Your task to perform on an android device: make emails show in primary in the gmail app Image 0: 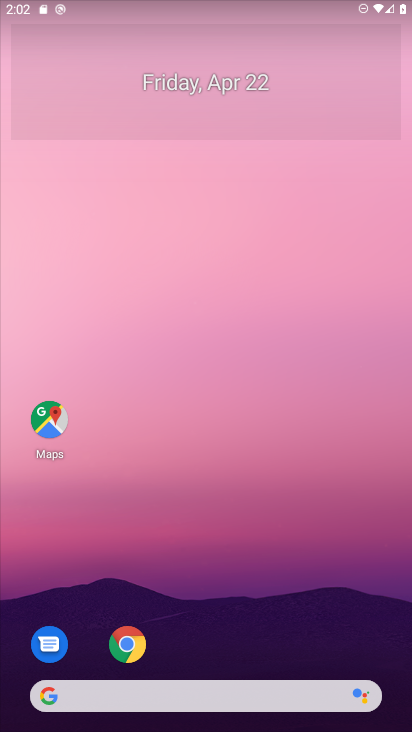
Step 0: drag from (290, 633) to (212, 173)
Your task to perform on an android device: make emails show in primary in the gmail app Image 1: 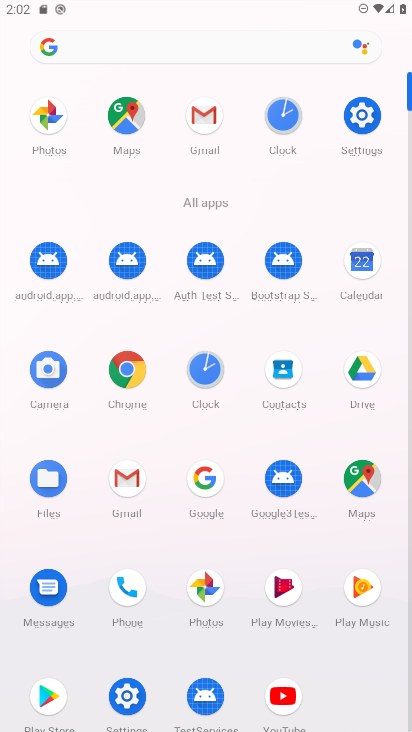
Step 1: click (196, 113)
Your task to perform on an android device: make emails show in primary in the gmail app Image 2: 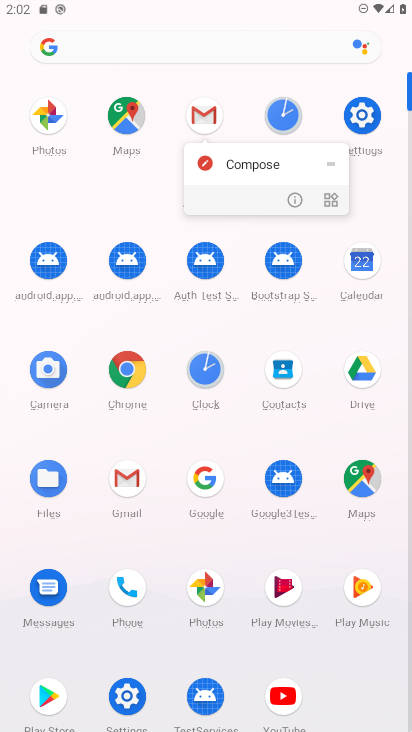
Step 2: click (196, 113)
Your task to perform on an android device: make emails show in primary in the gmail app Image 3: 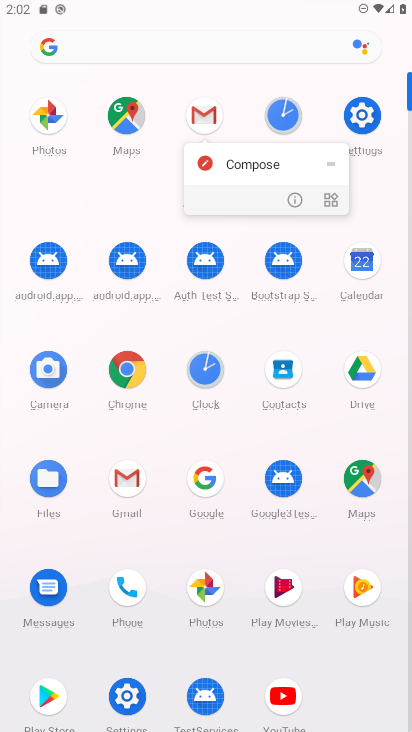
Step 3: click (132, 489)
Your task to perform on an android device: make emails show in primary in the gmail app Image 4: 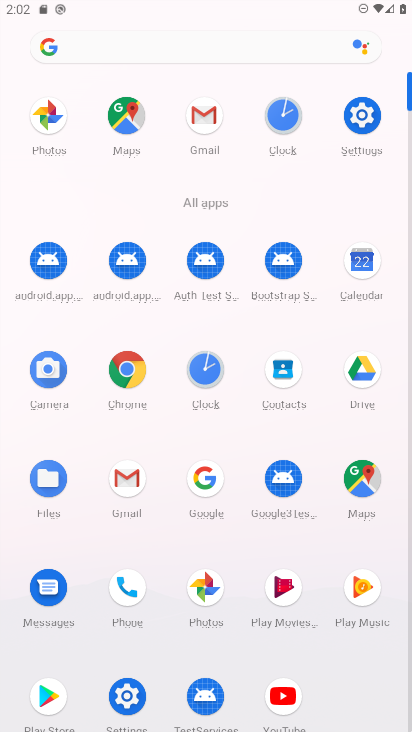
Step 4: click (131, 482)
Your task to perform on an android device: make emails show in primary in the gmail app Image 5: 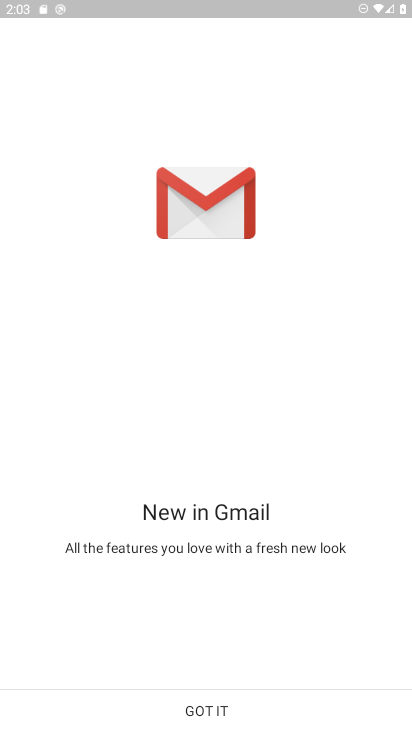
Step 5: click (175, 698)
Your task to perform on an android device: make emails show in primary in the gmail app Image 6: 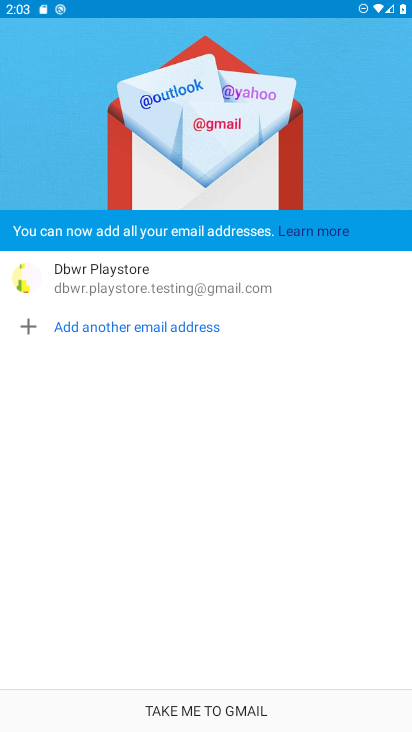
Step 6: click (215, 718)
Your task to perform on an android device: make emails show in primary in the gmail app Image 7: 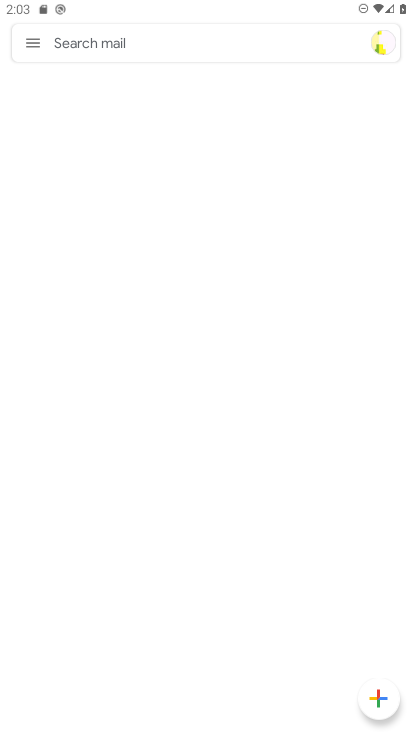
Step 7: click (30, 42)
Your task to perform on an android device: make emails show in primary in the gmail app Image 8: 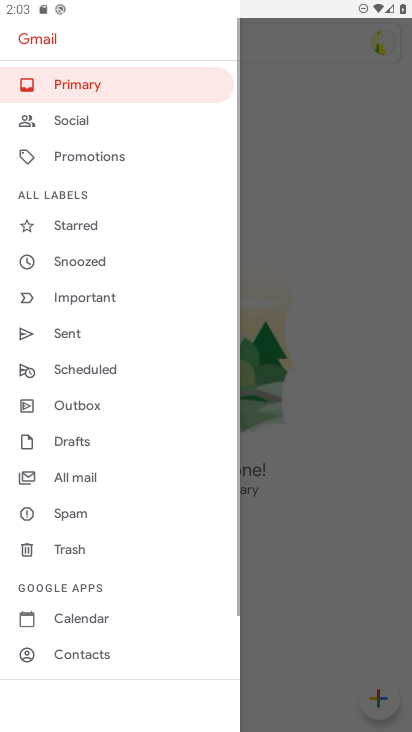
Step 8: drag from (78, 469) to (116, 275)
Your task to perform on an android device: make emails show in primary in the gmail app Image 9: 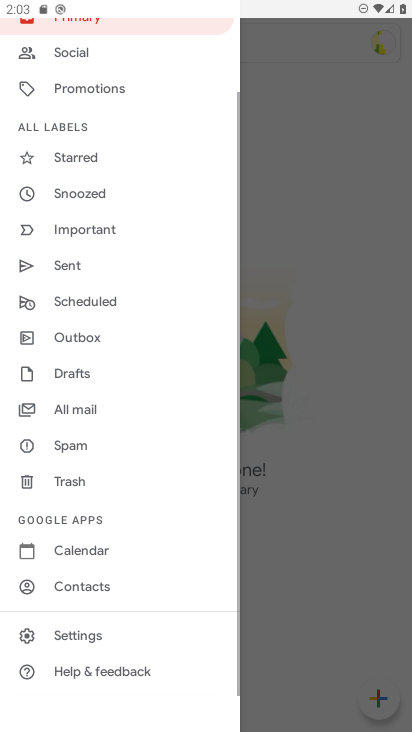
Step 9: click (72, 626)
Your task to perform on an android device: make emails show in primary in the gmail app Image 10: 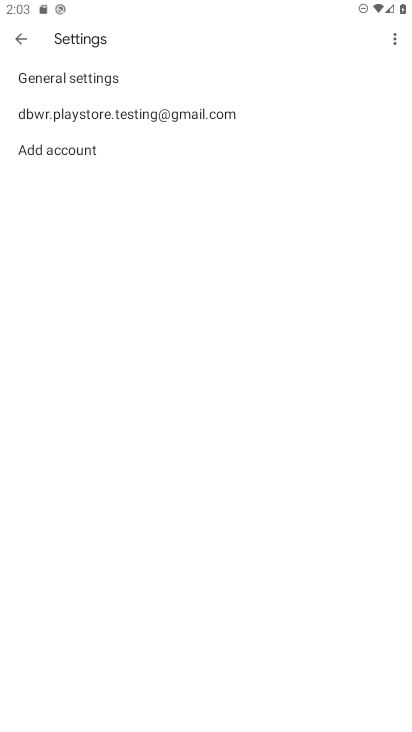
Step 10: click (175, 115)
Your task to perform on an android device: make emails show in primary in the gmail app Image 11: 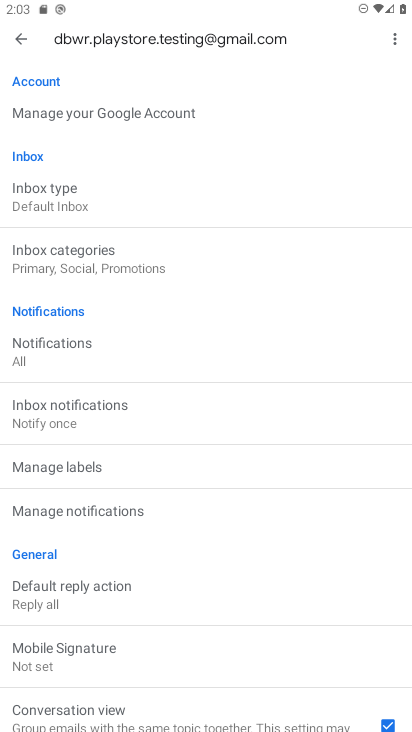
Step 11: click (67, 260)
Your task to perform on an android device: make emails show in primary in the gmail app Image 12: 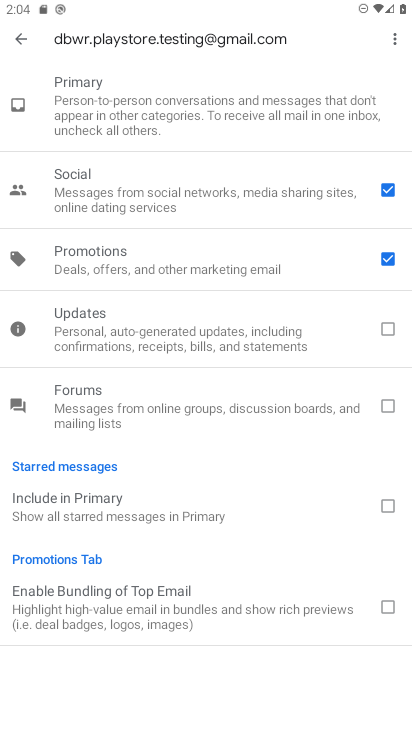
Step 12: task complete